Your task to perform on an android device: Check the weather Image 0: 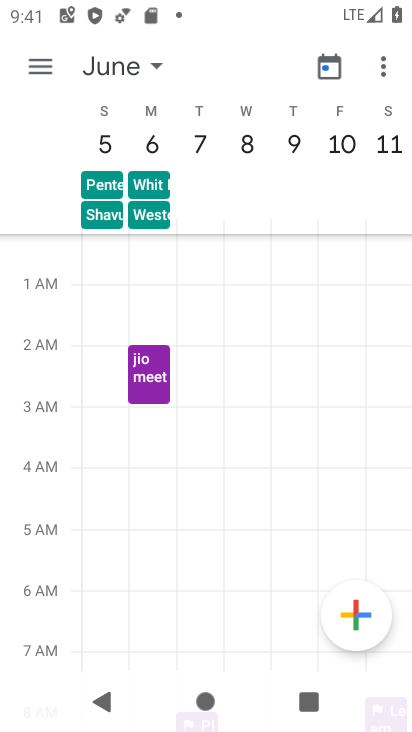
Step 0: task complete